Your task to perform on an android device: Set the phone to "Do not disturb". Image 0: 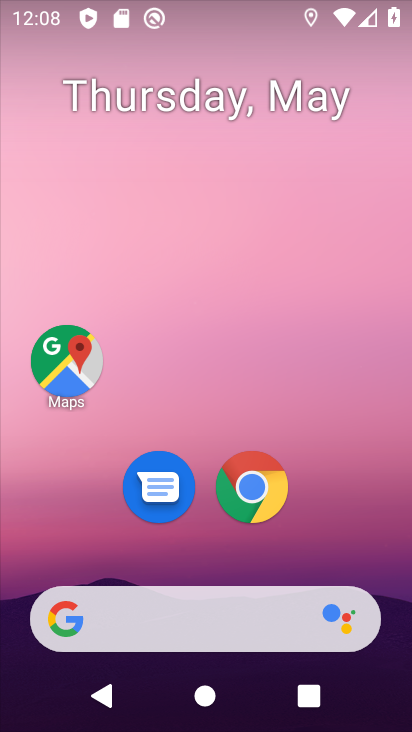
Step 0: drag from (370, 558) to (325, 39)
Your task to perform on an android device: Set the phone to "Do not disturb". Image 1: 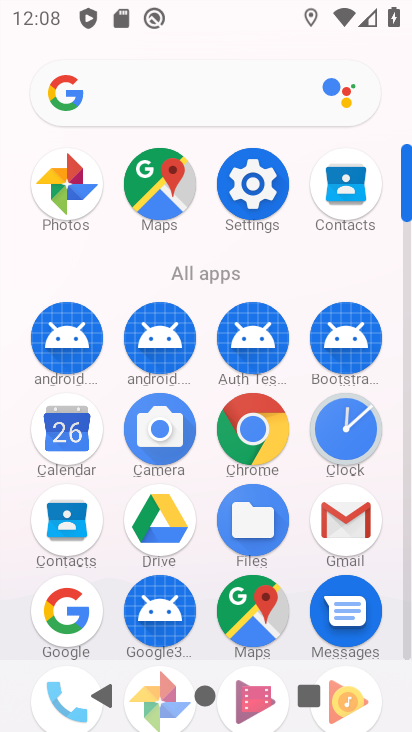
Step 1: click (238, 175)
Your task to perform on an android device: Set the phone to "Do not disturb". Image 2: 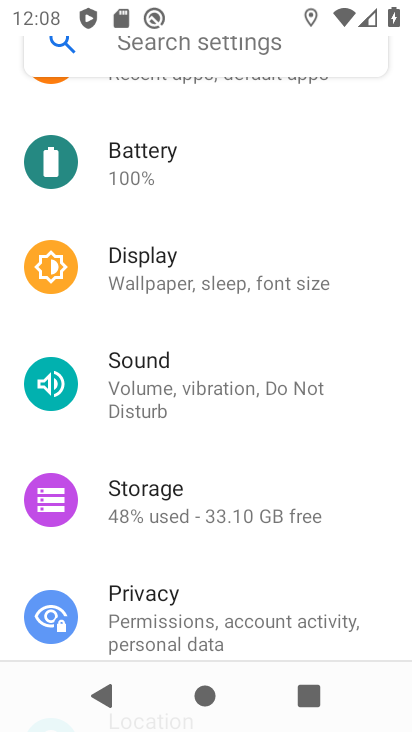
Step 2: click (179, 396)
Your task to perform on an android device: Set the phone to "Do not disturb". Image 3: 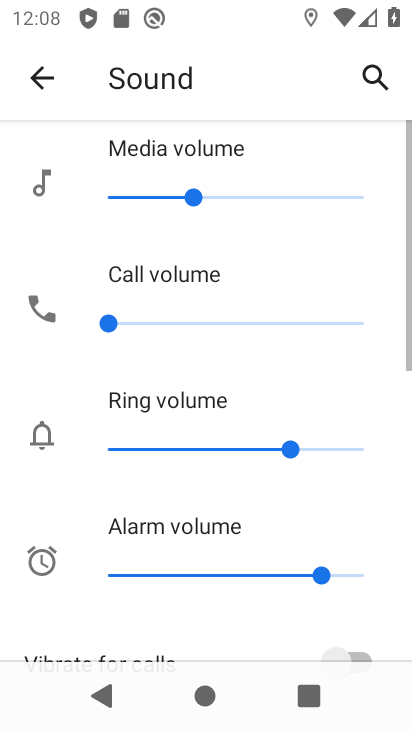
Step 3: drag from (113, 550) to (125, 69)
Your task to perform on an android device: Set the phone to "Do not disturb". Image 4: 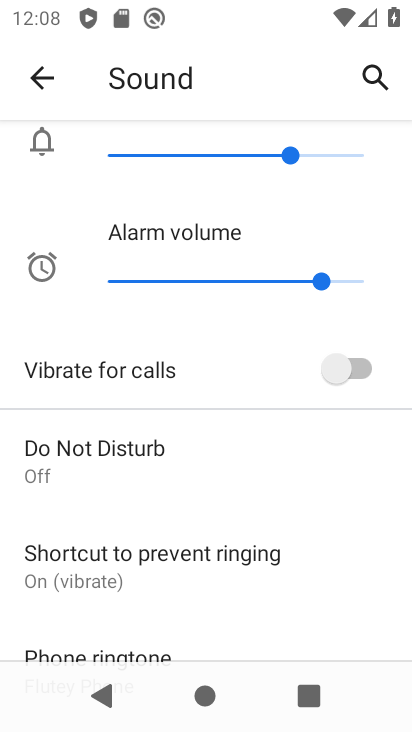
Step 4: click (93, 464)
Your task to perform on an android device: Set the phone to "Do not disturb". Image 5: 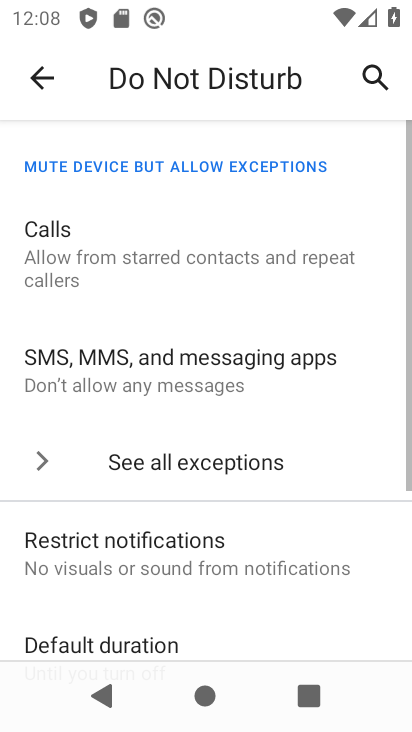
Step 5: drag from (105, 491) to (139, 94)
Your task to perform on an android device: Set the phone to "Do not disturb". Image 6: 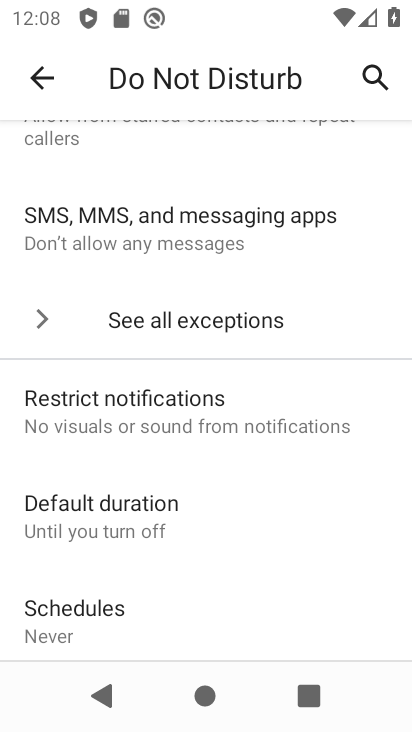
Step 6: drag from (108, 612) to (144, 186)
Your task to perform on an android device: Set the phone to "Do not disturb". Image 7: 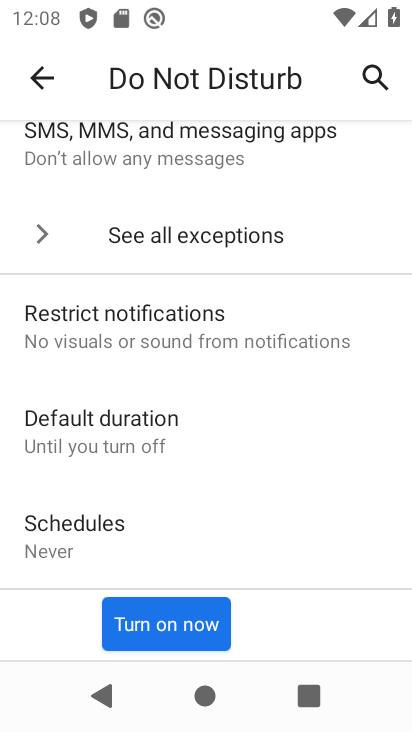
Step 7: click (129, 612)
Your task to perform on an android device: Set the phone to "Do not disturb". Image 8: 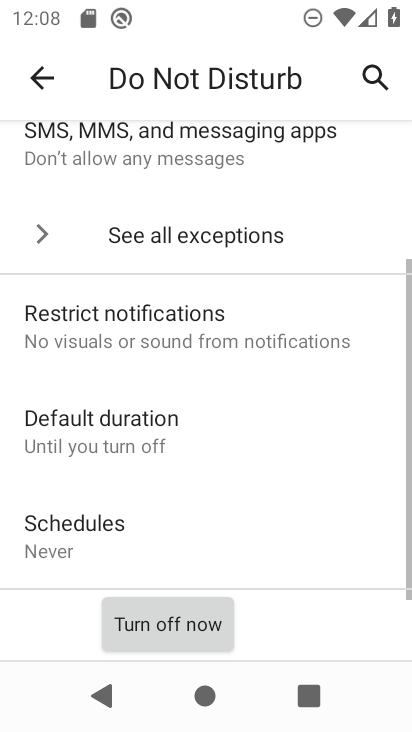
Step 8: task complete